Your task to perform on an android device: Open Google Chrome and click the shortcut for Amazon.com Image 0: 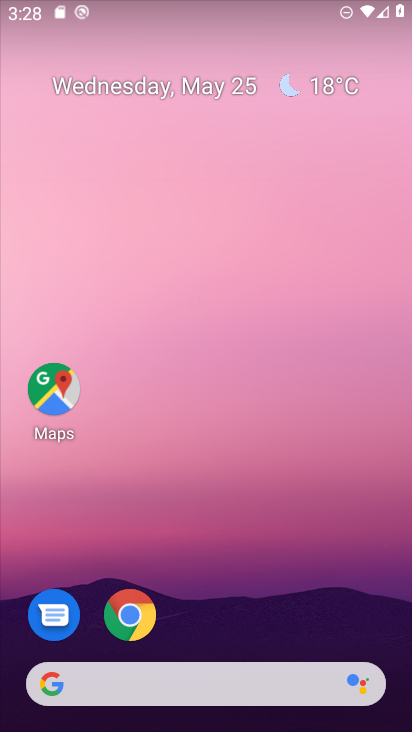
Step 0: click (131, 608)
Your task to perform on an android device: Open Google Chrome and click the shortcut for Amazon.com Image 1: 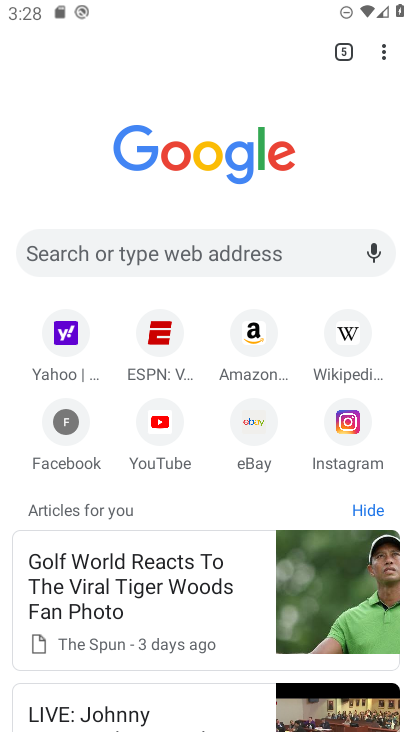
Step 1: click (247, 336)
Your task to perform on an android device: Open Google Chrome and click the shortcut for Amazon.com Image 2: 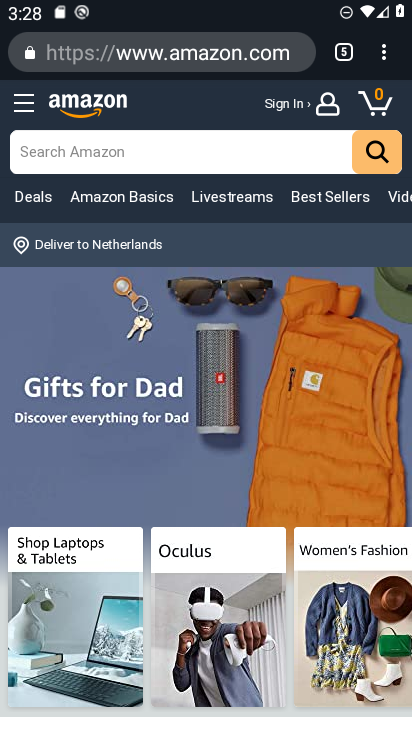
Step 2: task complete